Your task to perform on an android device: turn off improve location accuracy Image 0: 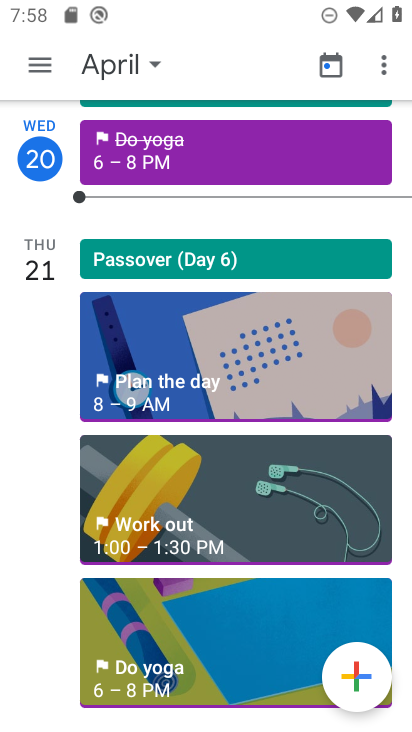
Step 0: press home button
Your task to perform on an android device: turn off improve location accuracy Image 1: 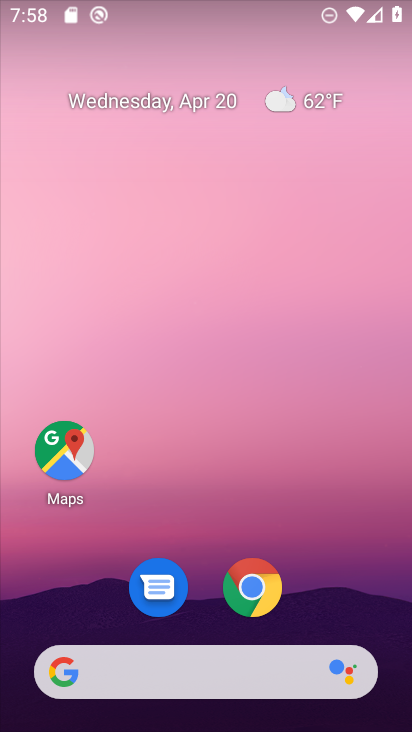
Step 1: drag from (323, 267) to (327, 2)
Your task to perform on an android device: turn off improve location accuracy Image 2: 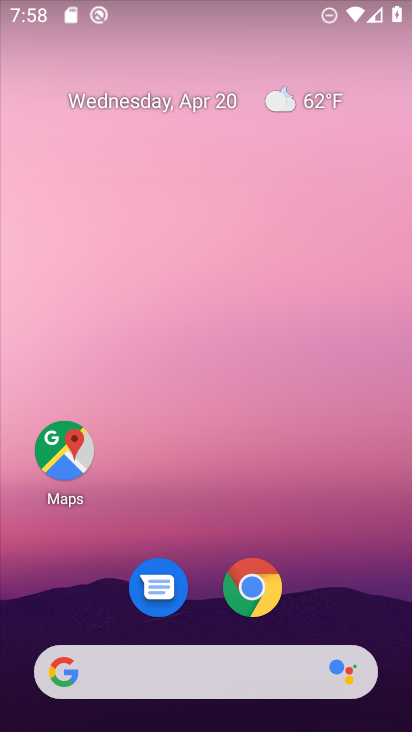
Step 2: drag from (355, 607) to (332, 0)
Your task to perform on an android device: turn off improve location accuracy Image 3: 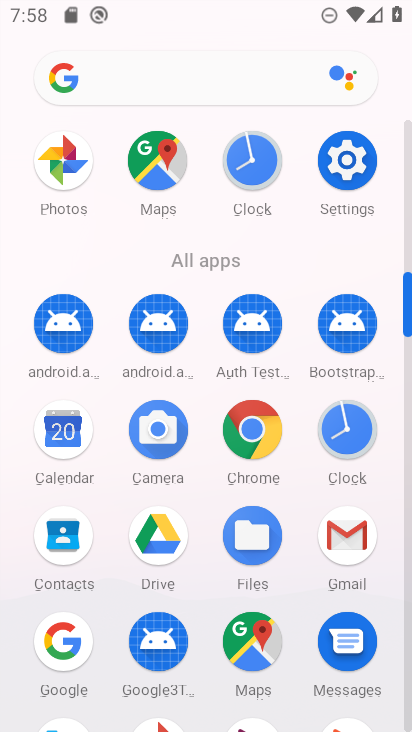
Step 3: click (354, 176)
Your task to perform on an android device: turn off improve location accuracy Image 4: 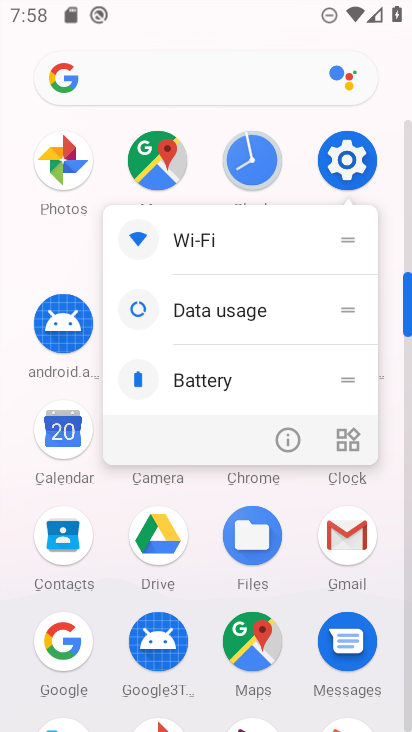
Step 4: click (354, 177)
Your task to perform on an android device: turn off improve location accuracy Image 5: 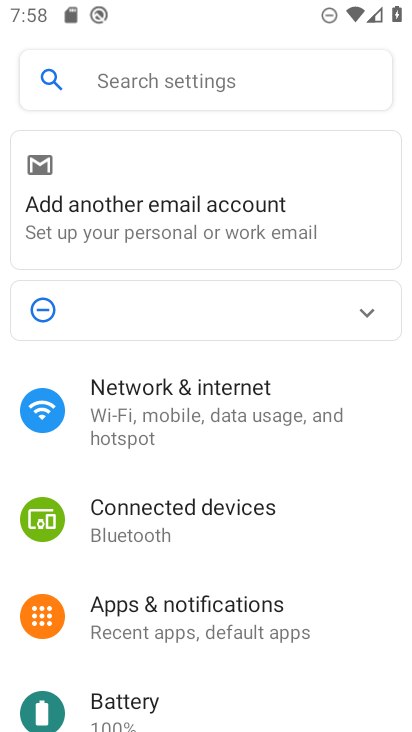
Step 5: drag from (251, 497) to (228, 34)
Your task to perform on an android device: turn off improve location accuracy Image 6: 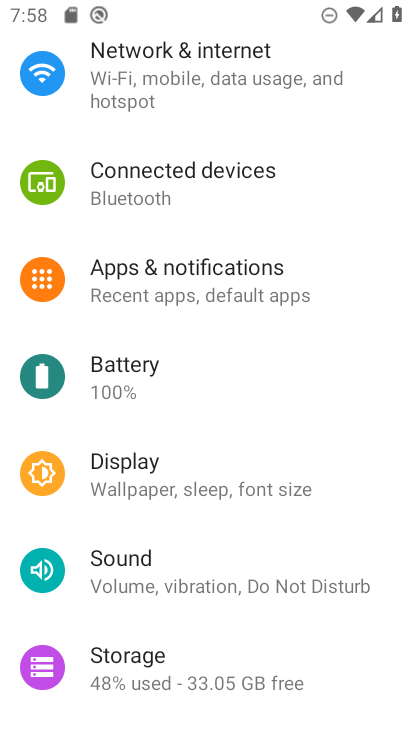
Step 6: drag from (208, 622) to (188, 72)
Your task to perform on an android device: turn off improve location accuracy Image 7: 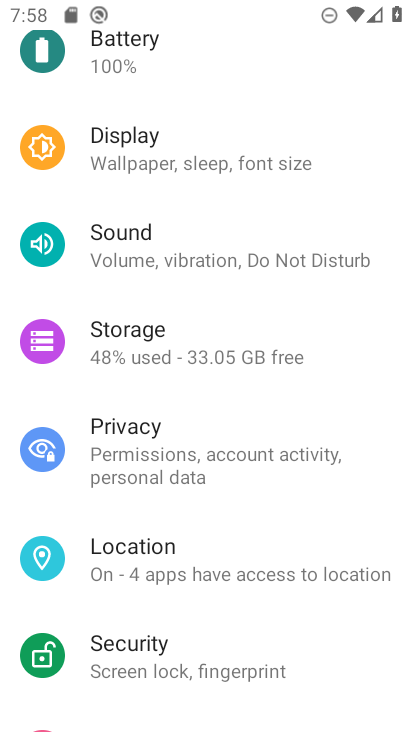
Step 7: click (137, 557)
Your task to perform on an android device: turn off improve location accuracy Image 8: 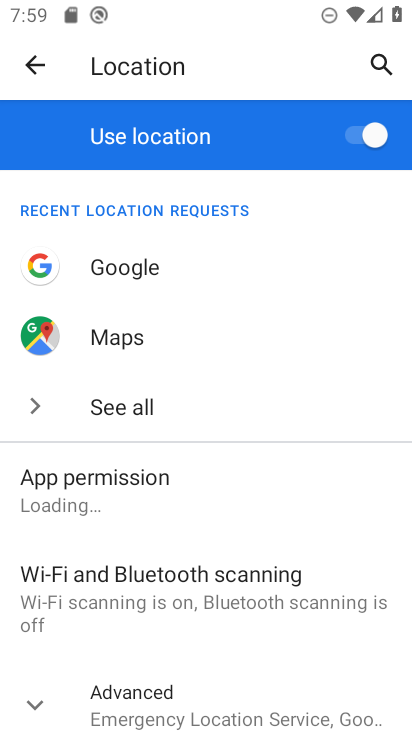
Step 8: drag from (183, 654) to (170, 351)
Your task to perform on an android device: turn off improve location accuracy Image 9: 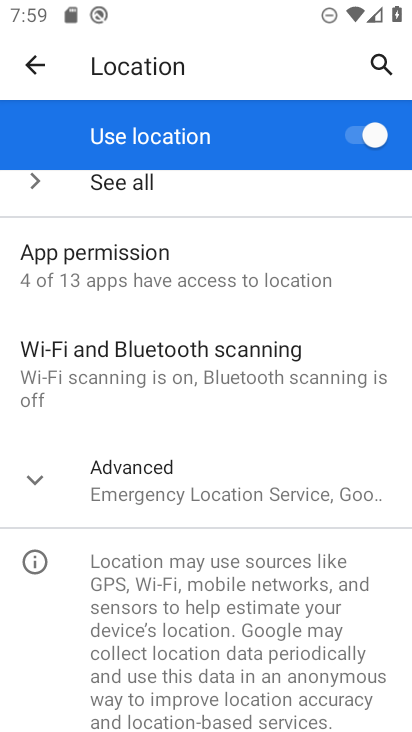
Step 9: click (140, 497)
Your task to perform on an android device: turn off improve location accuracy Image 10: 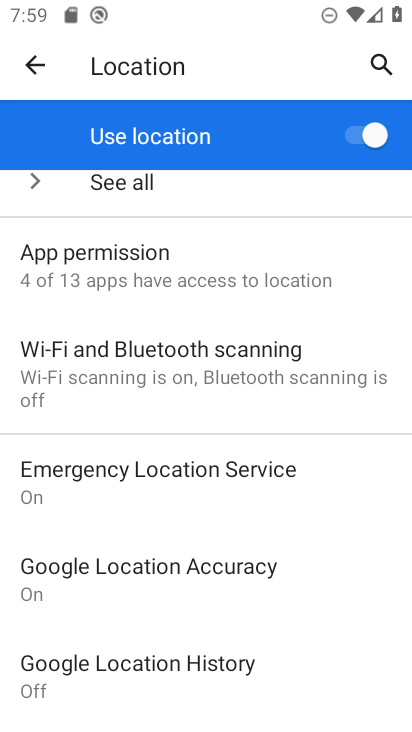
Step 10: click (190, 565)
Your task to perform on an android device: turn off improve location accuracy Image 11: 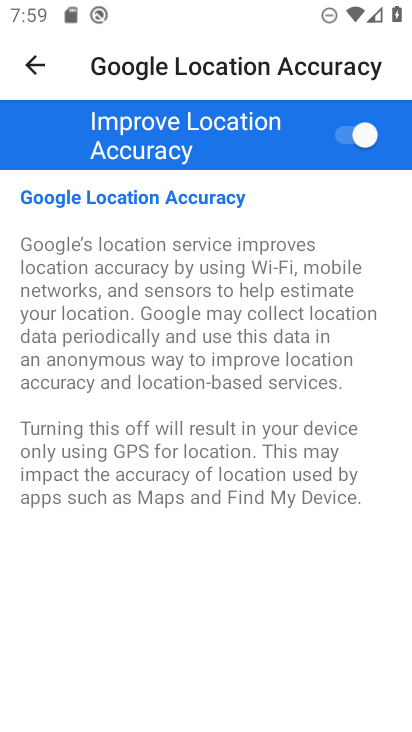
Step 11: click (362, 142)
Your task to perform on an android device: turn off improve location accuracy Image 12: 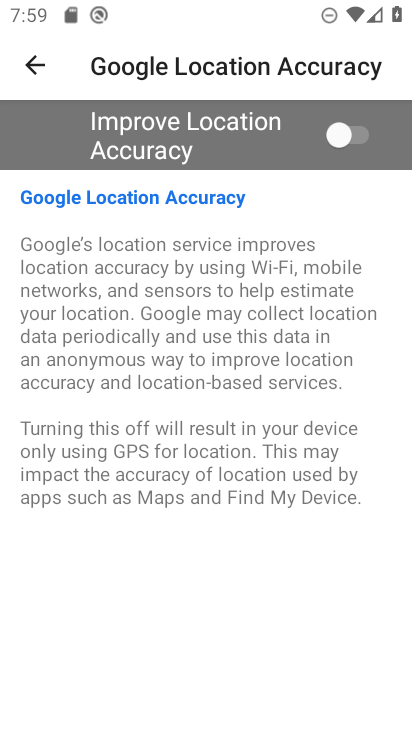
Step 12: task complete